Your task to perform on an android device: Go to Amazon Image 0: 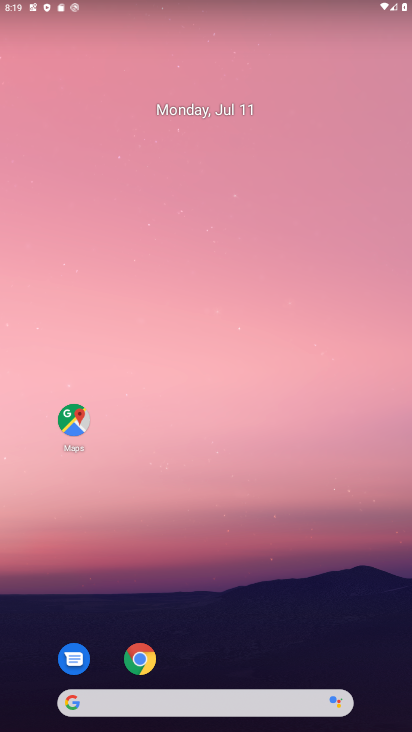
Step 0: drag from (203, 654) to (229, 423)
Your task to perform on an android device: Go to Amazon Image 1: 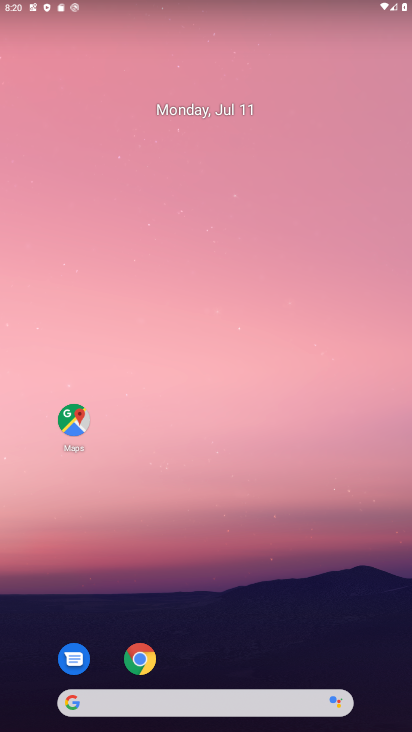
Step 1: drag from (223, 532) to (225, 370)
Your task to perform on an android device: Go to Amazon Image 2: 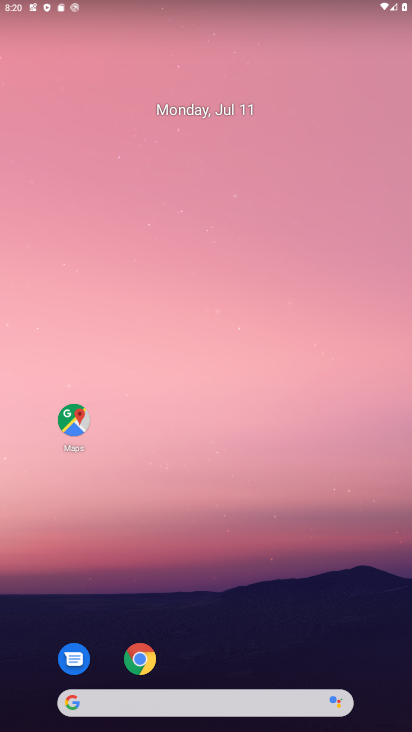
Step 2: drag from (201, 652) to (128, 24)
Your task to perform on an android device: Go to Amazon Image 3: 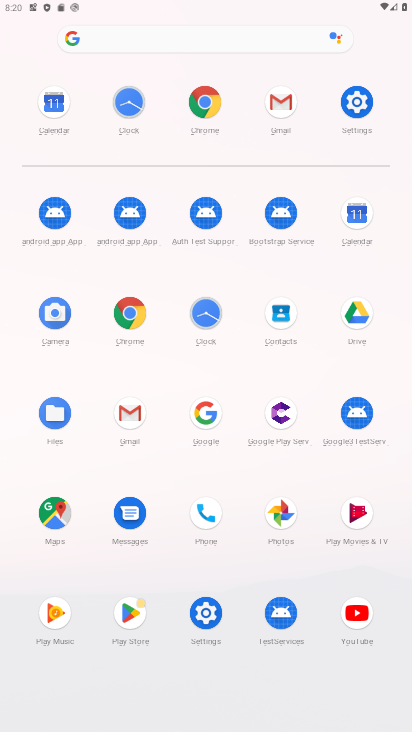
Step 3: click (205, 104)
Your task to perform on an android device: Go to Amazon Image 4: 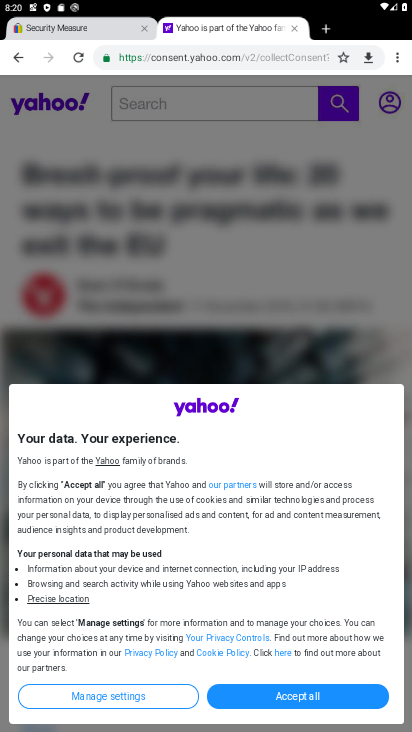
Step 4: click (295, 33)
Your task to perform on an android device: Go to Amazon Image 5: 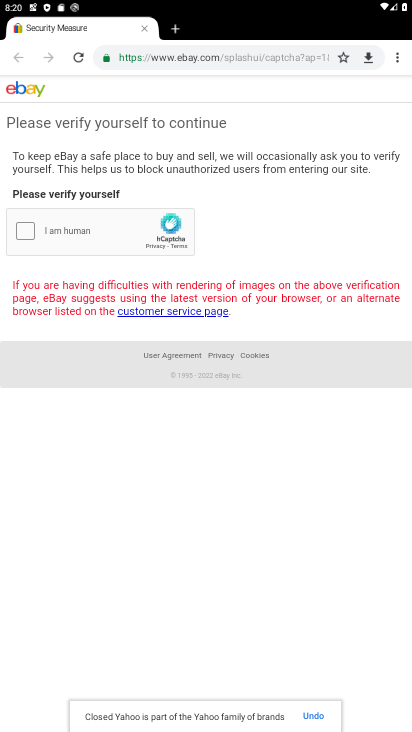
Step 5: click (176, 33)
Your task to perform on an android device: Go to Amazon Image 6: 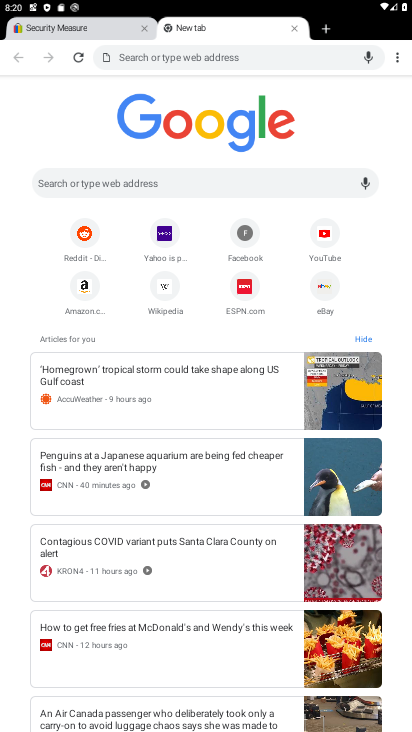
Step 6: click (174, 180)
Your task to perform on an android device: Go to Amazon Image 7: 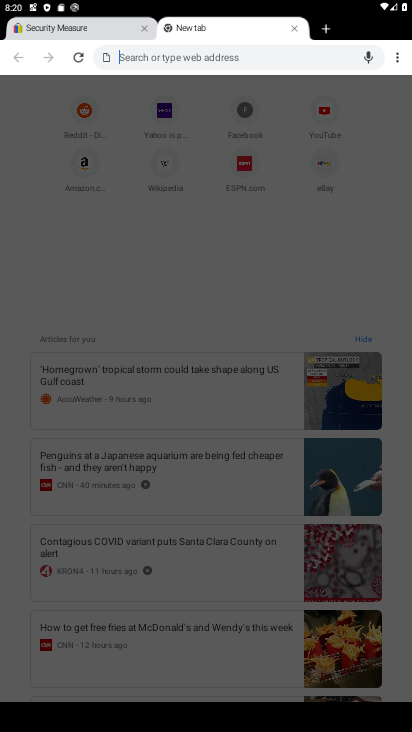
Step 7: click (140, 191)
Your task to perform on an android device: Go to Amazon Image 8: 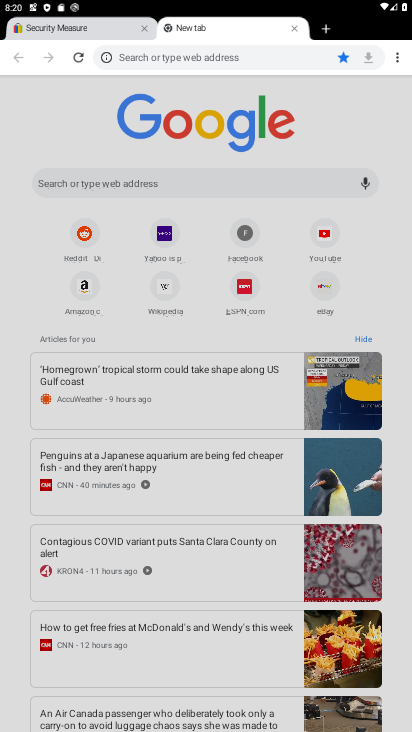
Step 8: click (100, 176)
Your task to perform on an android device: Go to Amazon Image 9: 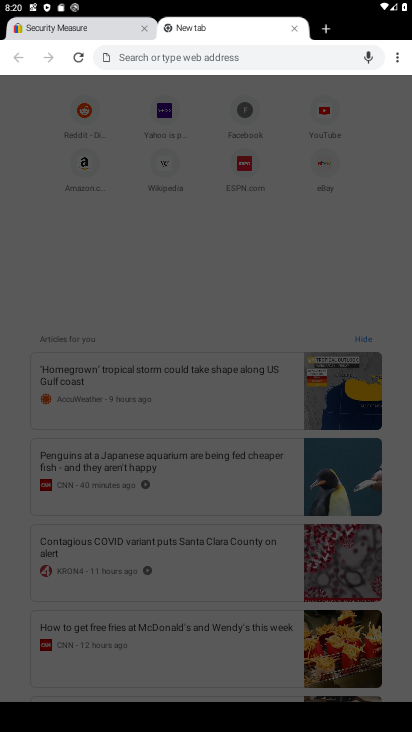
Step 9: click (142, 307)
Your task to perform on an android device: Go to Amazon Image 10: 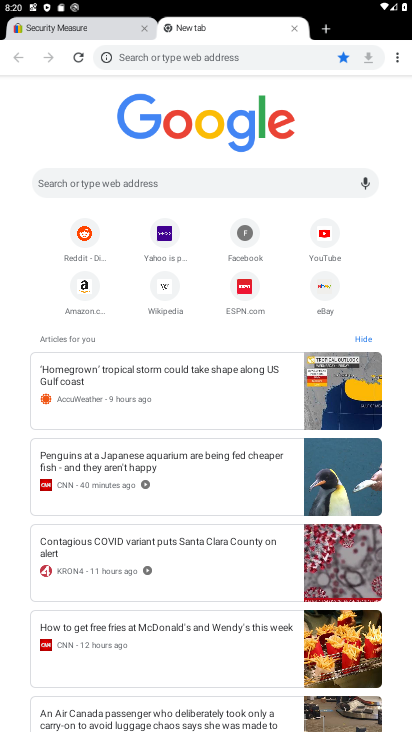
Step 10: click (82, 292)
Your task to perform on an android device: Go to Amazon Image 11: 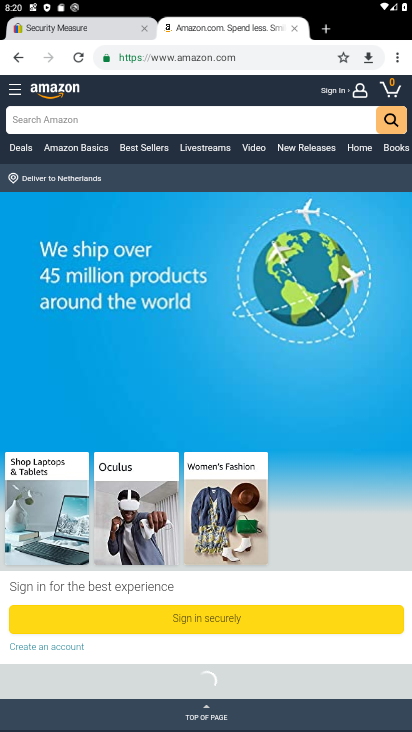
Step 11: task complete